Your task to perform on an android device: open a new tab in the chrome app Image 0: 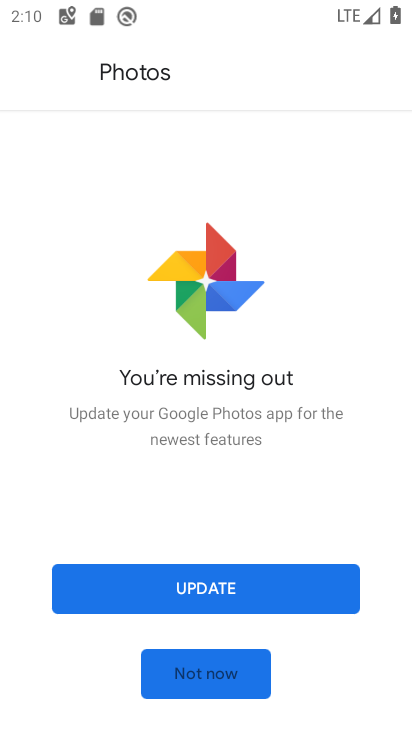
Step 0: press home button
Your task to perform on an android device: open a new tab in the chrome app Image 1: 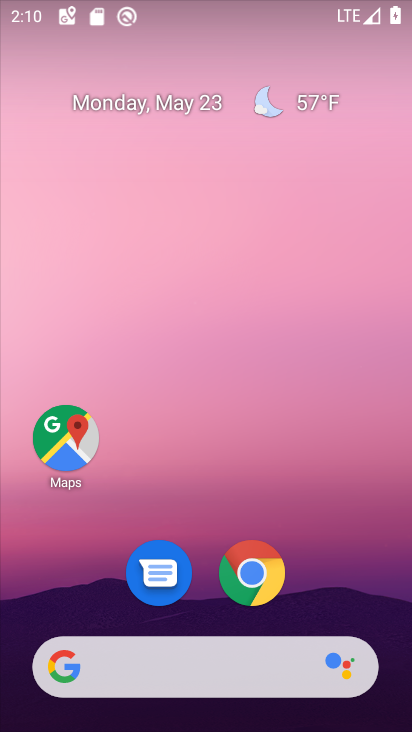
Step 1: press home button
Your task to perform on an android device: open a new tab in the chrome app Image 2: 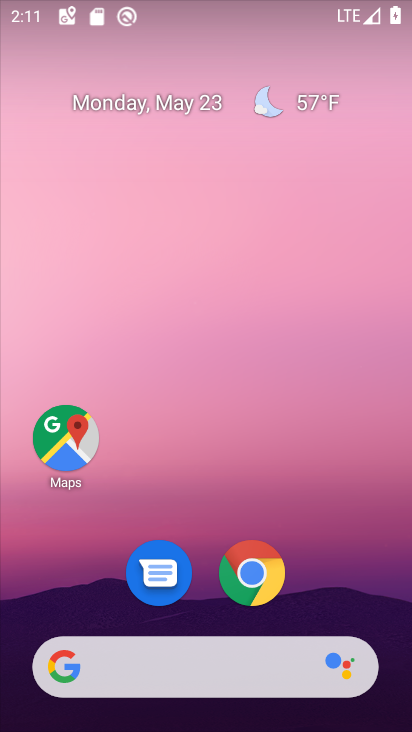
Step 2: click (253, 567)
Your task to perform on an android device: open a new tab in the chrome app Image 3: 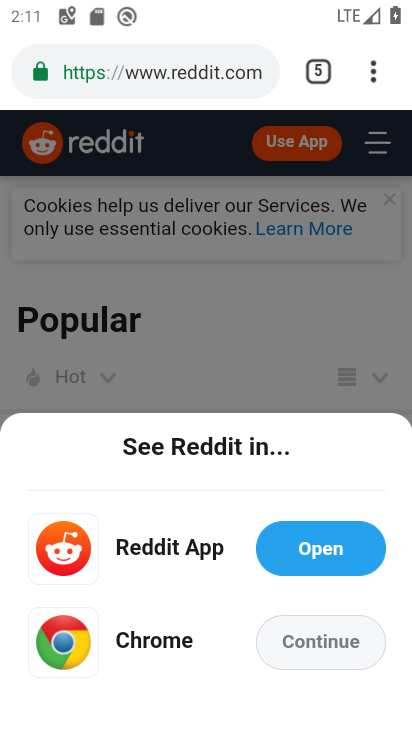
Step 3: click (315, 71)
Your task to perform on an android device: open a new tab in the chrome app Image 4: 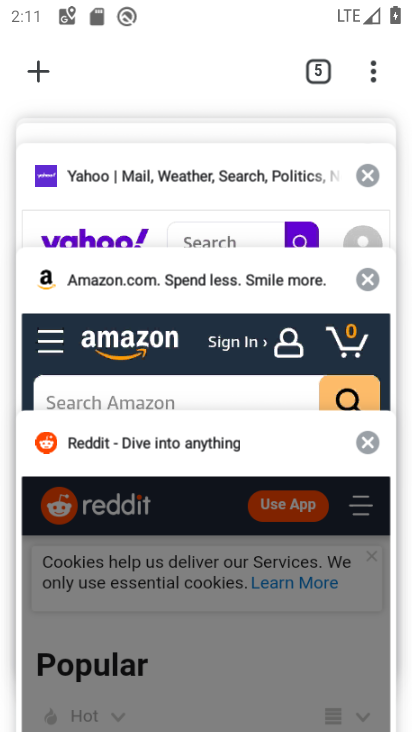
Step 4: click (36, 63)
Your task to perform on an android device: open a new tab in the chrome app Image 5: 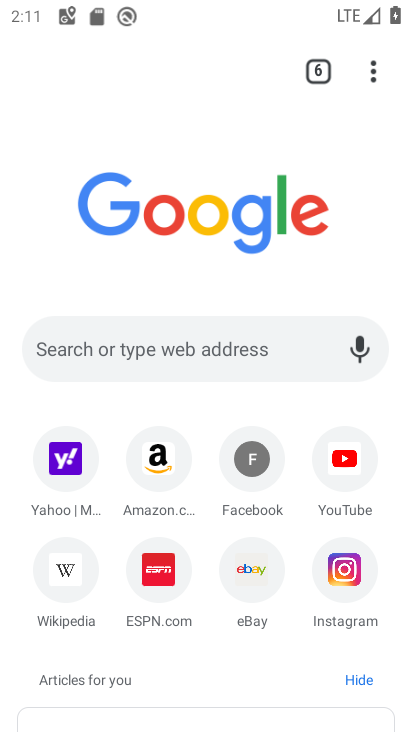
Step 5: task complete